Your task to perform on an android device: add a label to a message in the gmail app Image 0: 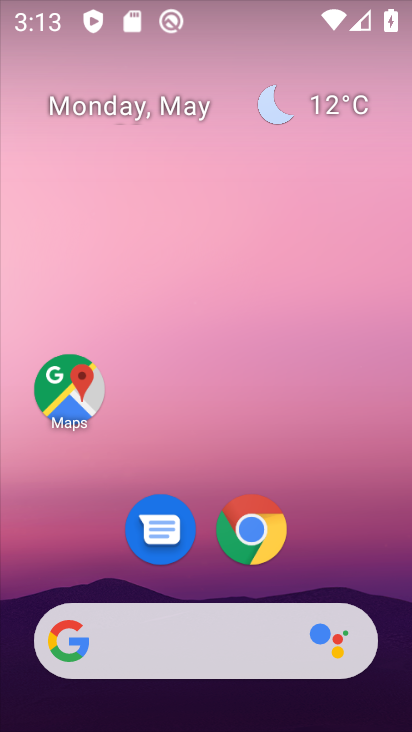
Step 0: drag from (366, 518) to (325, 74)
Your task to perform on an android device: add a label to a message in the gmail app Image 1: 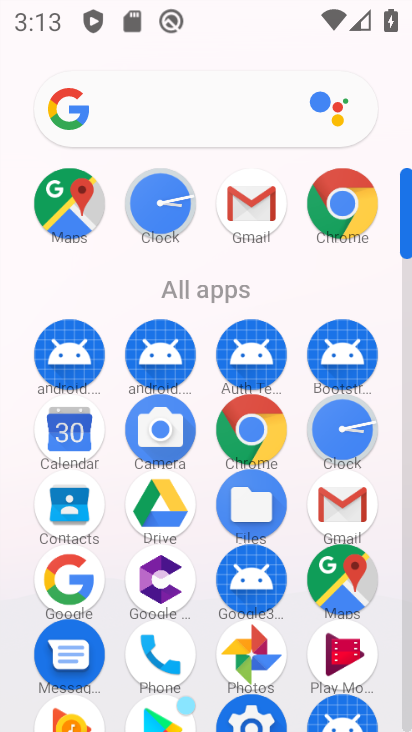
Step 1: click (261, 195)
Your task to perform on an android device: add a label to a message in the gmail app Image 2: 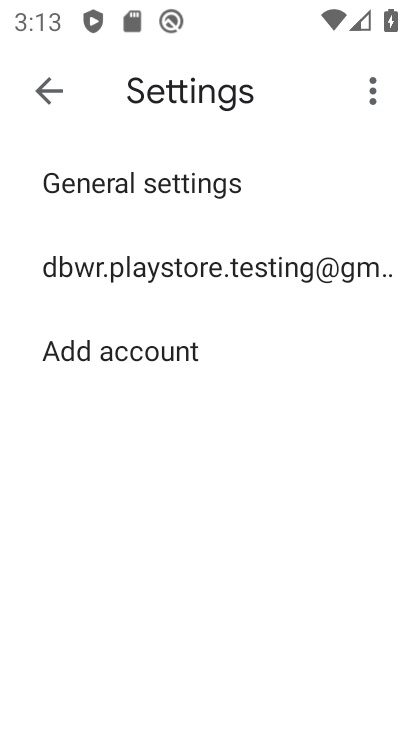
Step 2: click (54, 95)
Your task to perform on an android device: add a label to a message in the gmail app Image 3: 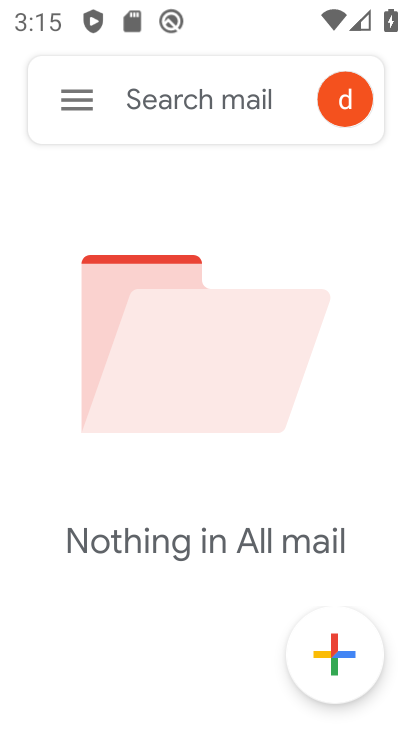
Step 3: task complete